Your task to perform on an android device: Open the calendar app Image 0: 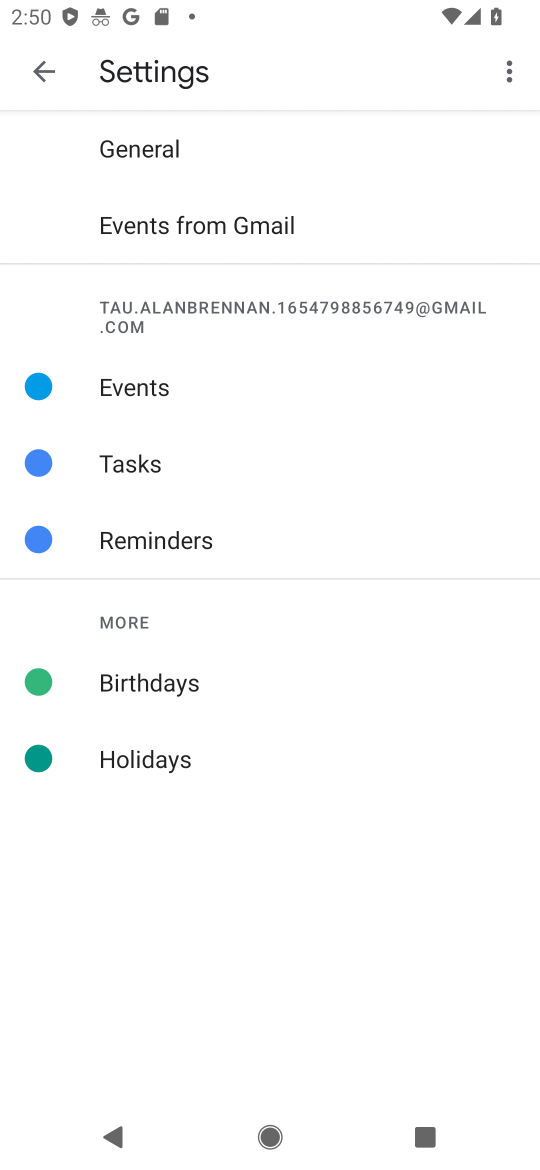
Step 0: press home button
Your task to perform on an android device: Open the calendar app Image 1: 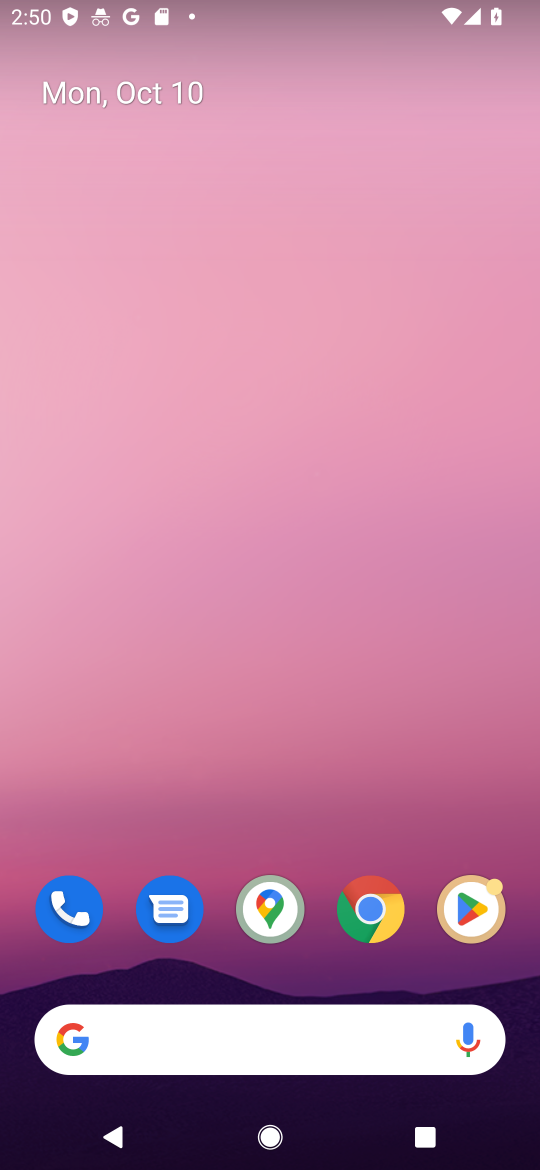
Step 1: drag from (422, 973) to (349, 225)
Your task to perform on an android device: Open the calendar app Image 2: 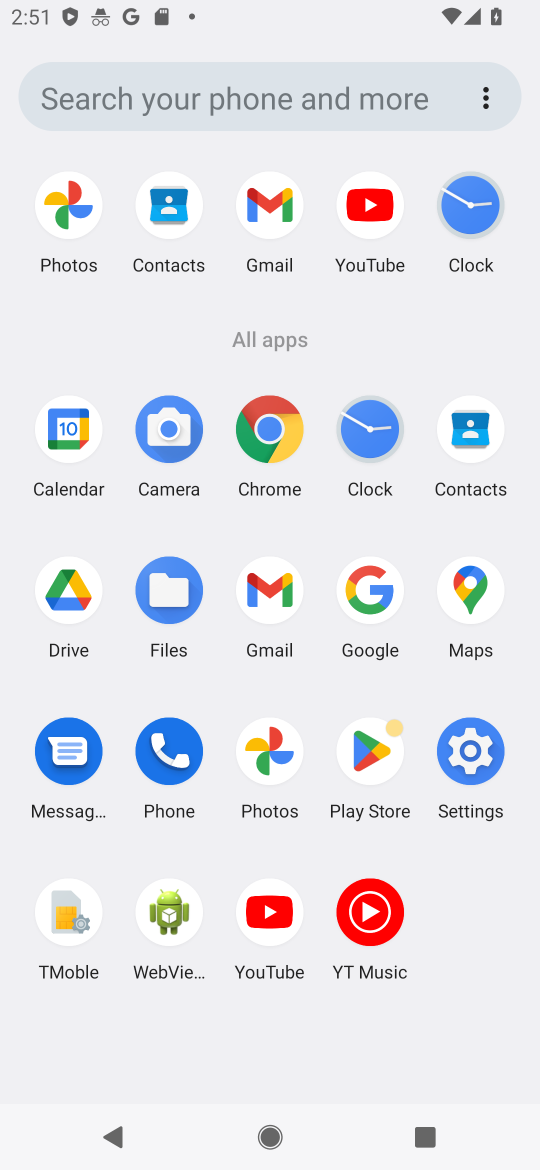
Step 2: click (71, 425)
Your task to perform on an android device: Open the calendar app Image 3: 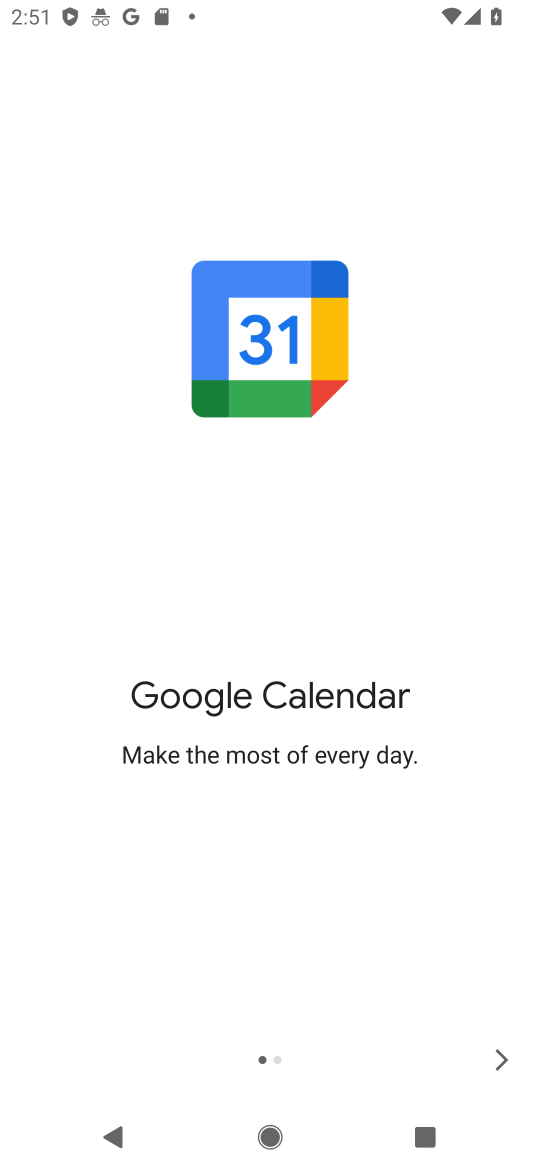
Step 3: click (497, 1059)
Your task to perform on an android device: Open the calendar app Image 4: 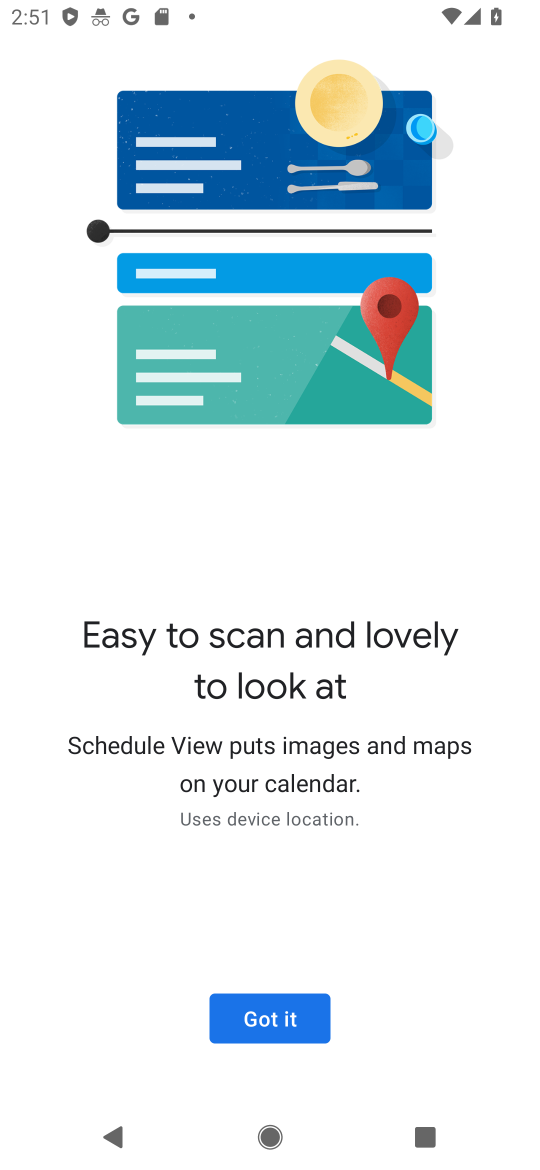
Step 4: click (265, 1020)
Your task to perform on an android device: Open the calendar app Image 5: 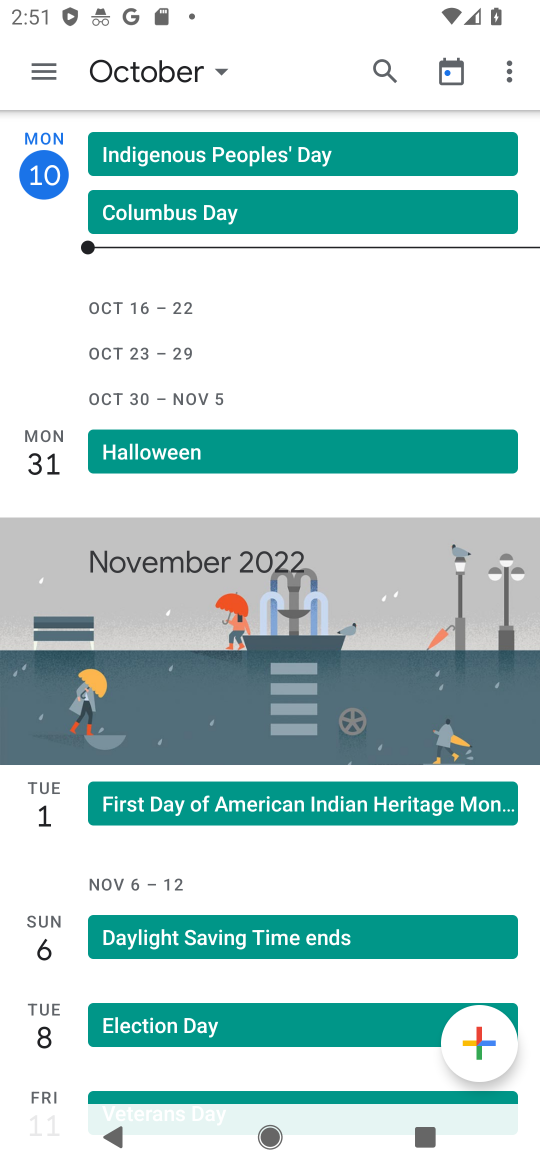
Step 5: task complete